Your task to perform on an android device: Open wifi settings Image 0: 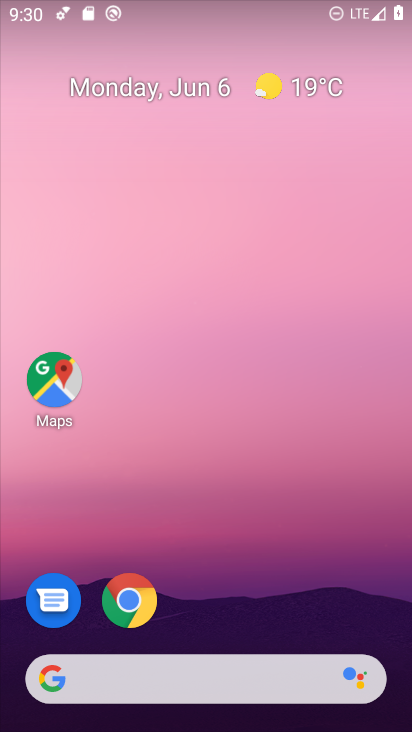
Step 0: drag from (300, 362) to (297, 66)
Your task to perform on an android device: Open wifi settings Image 1: 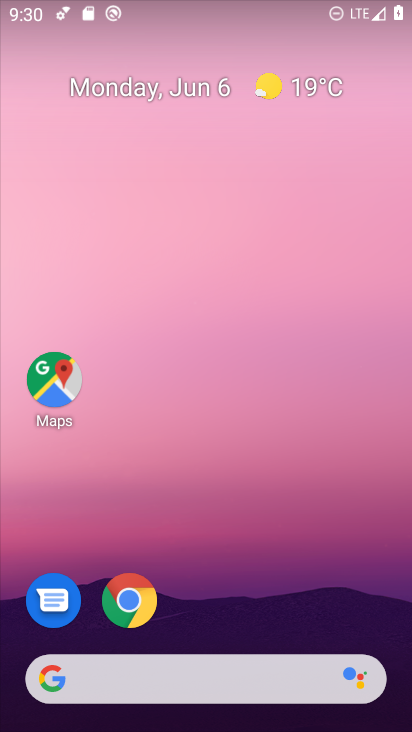
Step 1: drag from (315, 542) to (261, 38)
Your task to perform on an android device: Open wifi settings Image 2: 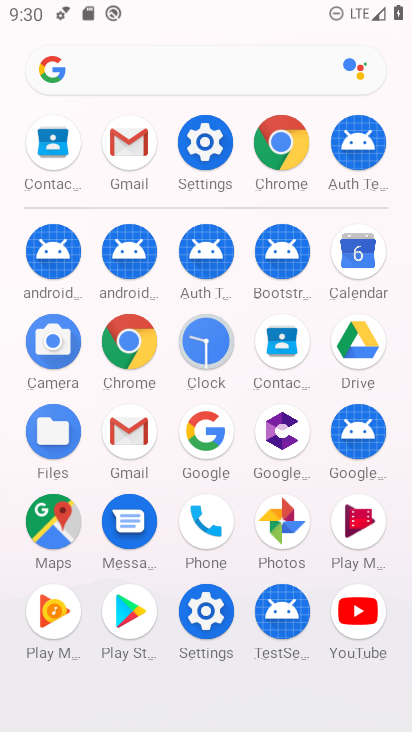
Step 2: click (203, 141)
Your task to perform on an android device: Open wifi settings Image 3: 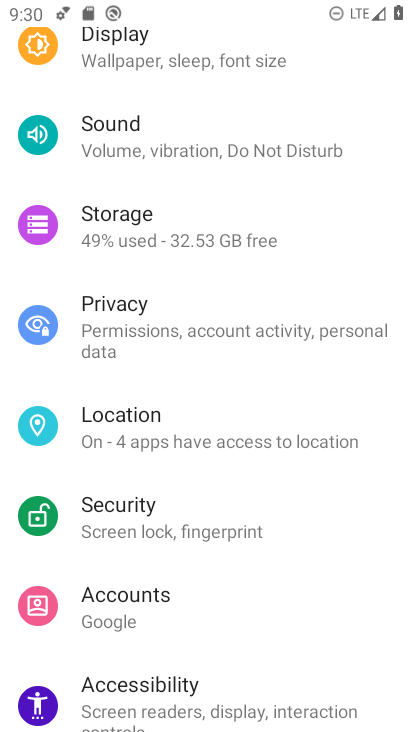
Step 3: drag from (198, 125) to (119, 569)
Your task to perform on an android device: Open wifi settings Image 4: 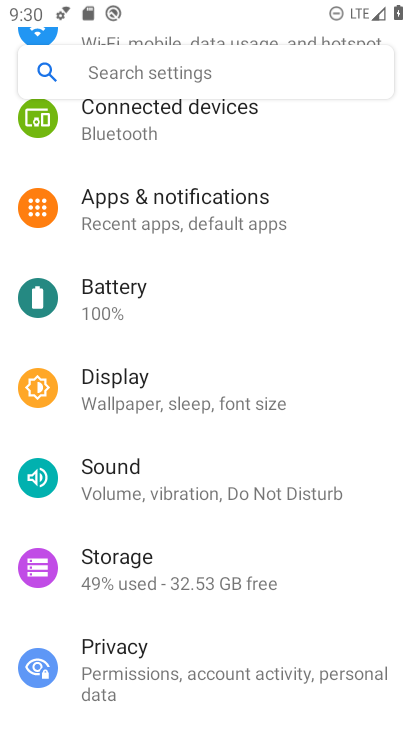
Step 4: drag from (205, 134) to (236, 605)
Your task to perform on an android device: Open wifi settings Image 5: 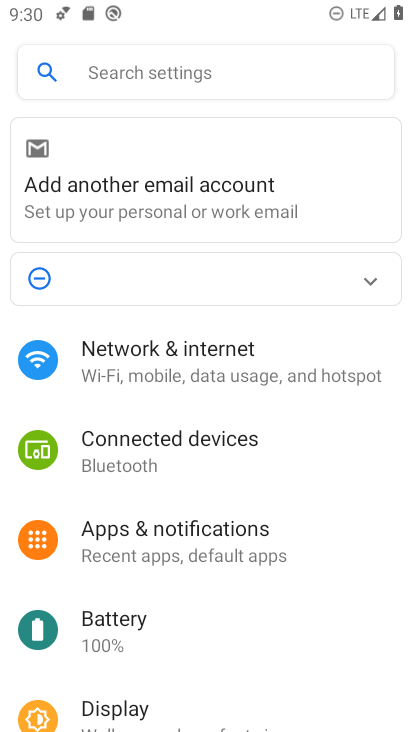
Step 5: click (191, 366)
Your task to perform on an android device: Open wifi settings Image 6: 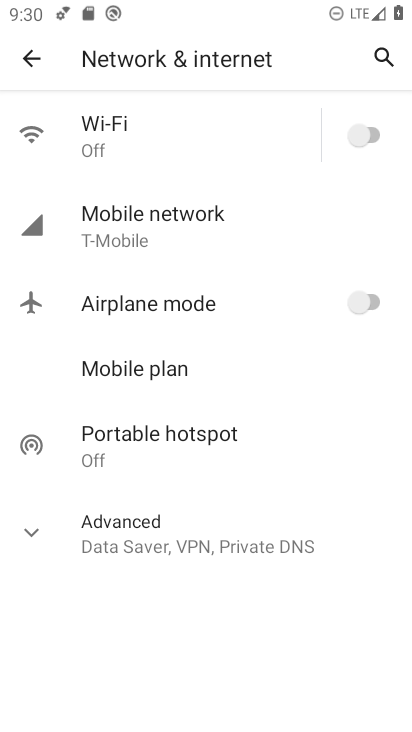
Step 6: click (196, 144)
Your task to perform on an android device: Open wifi settings Image 7: 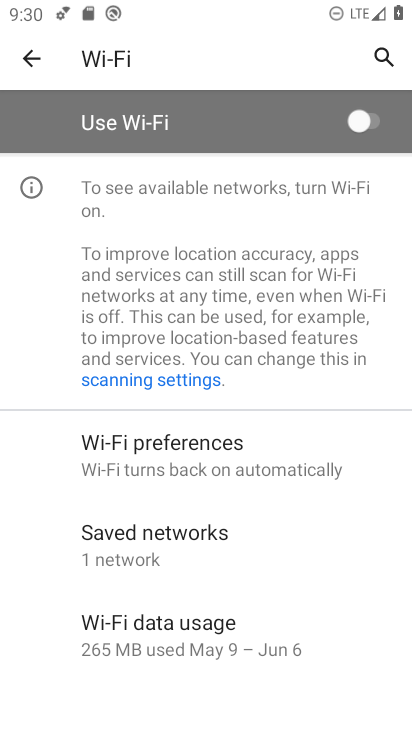
Step 7: task complete